Your task to perform on an android device: change the clock display to analog Image 0: 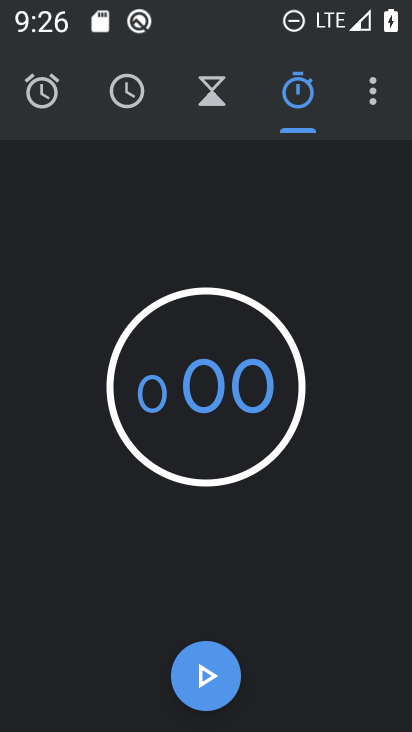
Step 0: press home button
Your task to perform on an android device: change the clock display to analog Image 1: 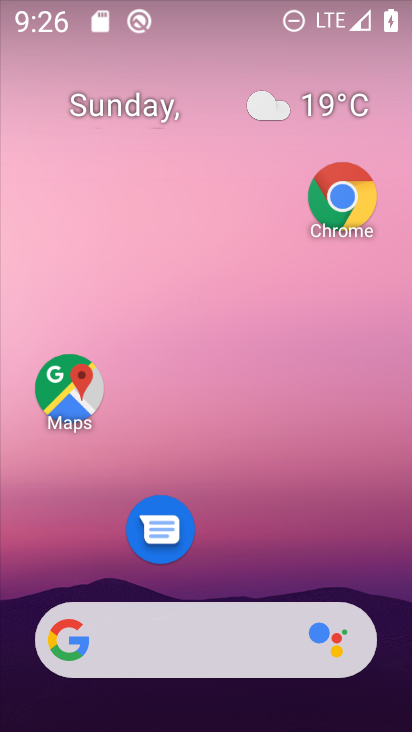
Step 1: drag from (222, 581) to (237, 1)
Your task to perform on an android device: change the clock display to analog Image 2: 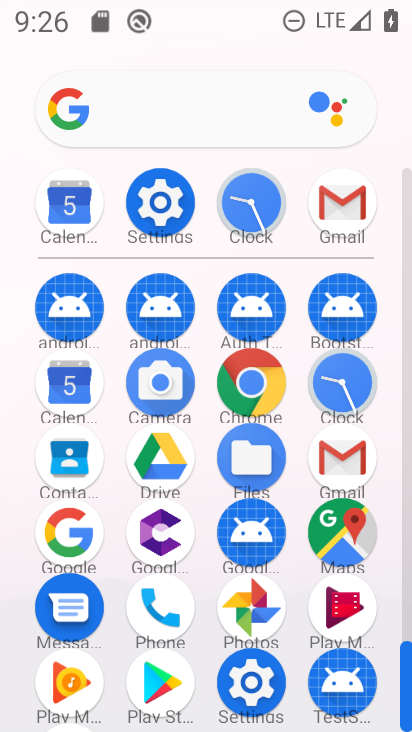
Step 2: click (342, 378)
Your task to perform on an android device: change the clock display to analog Image 3: 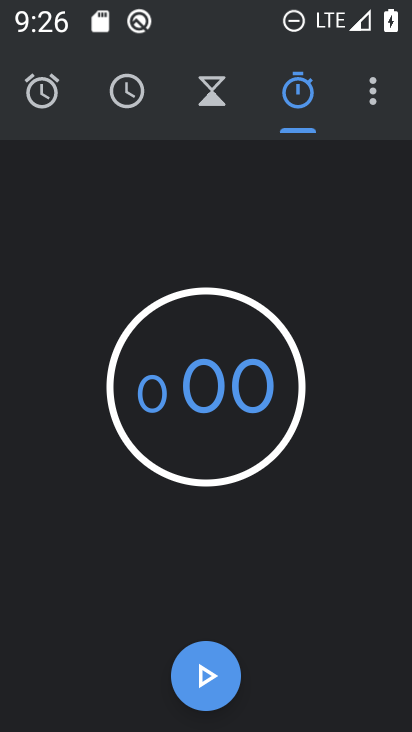
Step 3: click (374, 85)
Your task to perform on an android device: change the clock display to analog Image 4: 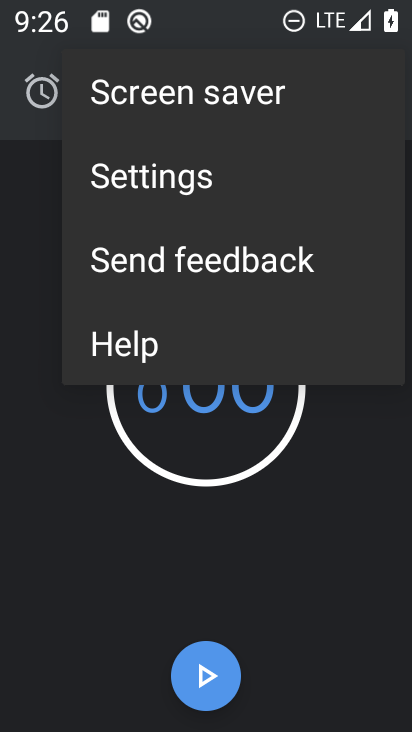
Step 4: click (226, 176)
Your task to perform on an android device: change the clock display to analog Image 5: 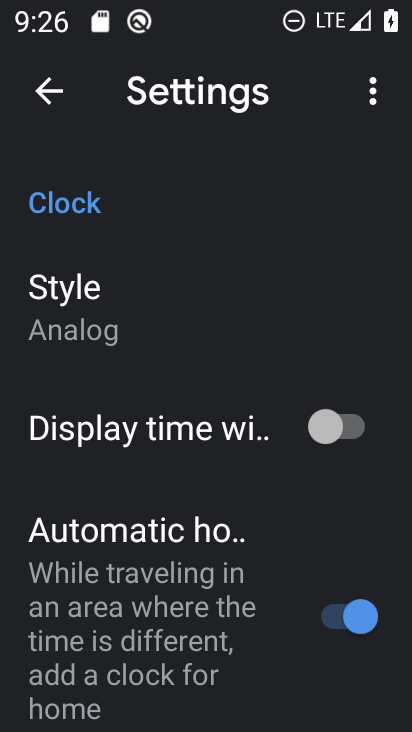
Step 5: click (133, 305)
Your task to perform on an android device: change the clock display to analog Image 6: 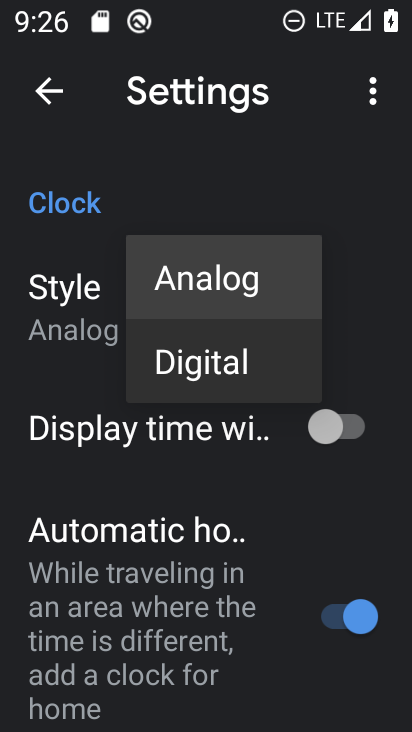
Step 6: click (246, 300)
Your task to perform on an android device: change the clock display to analog Image 7: 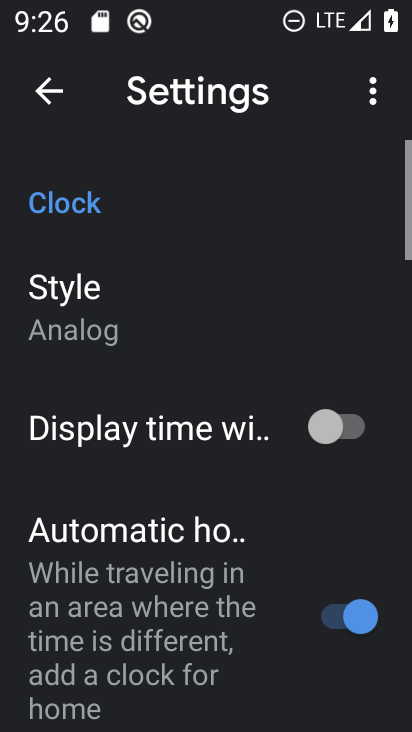
Step 7: task complete